Your task to perform on an android device: make emails show in primary in the gmail app Image 0: 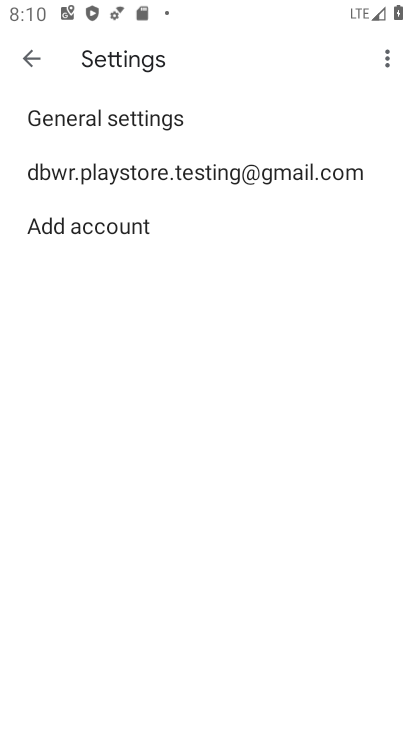
Step 0: press home button
Your task to perform on an android device: make emails show in primary in the gmail app Image 1: 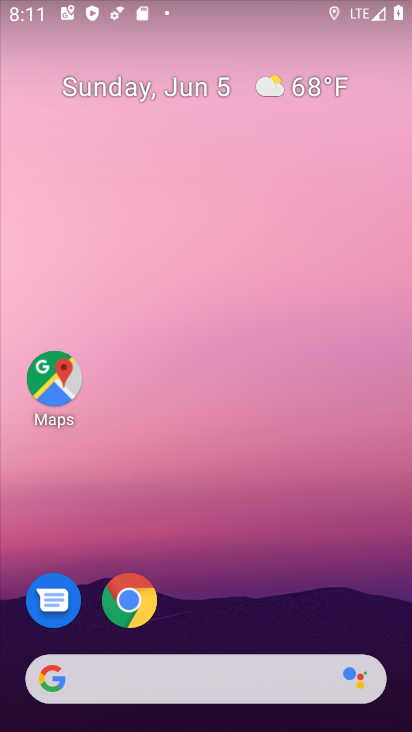
Step 1: drag from (207, 591) to (185, 1)
Your task to perform on an android device: make emails show in primary in the gmail app Image 2: 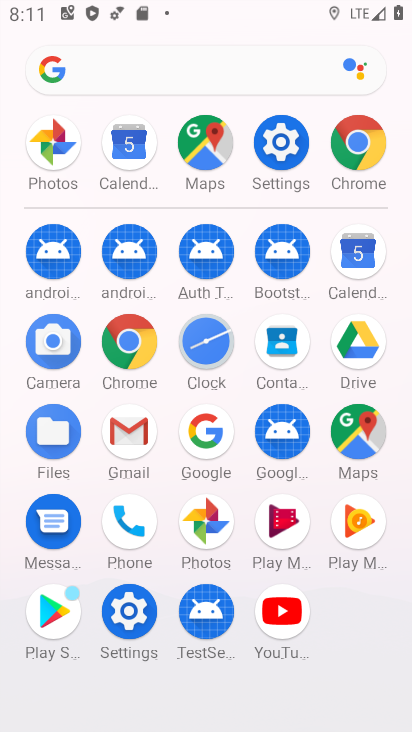
Step 2: click (132, 436)
Your task to perform on an android device: make emails show in primary in the gmail app Image 3: 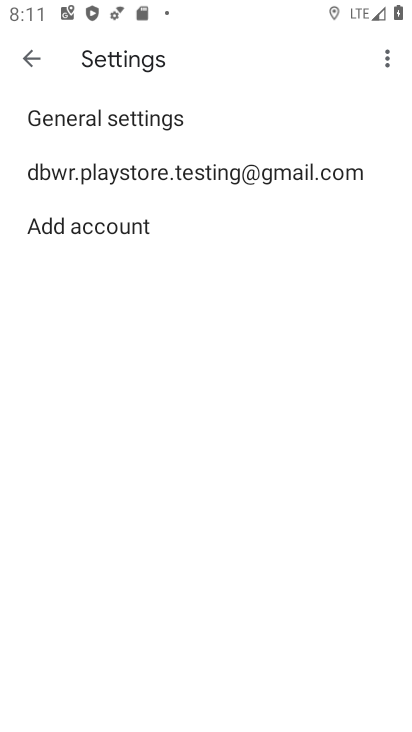
Step 3: click (40, 48)
Your task to perform on an android device: make emails show in primary in the gmail app Image 4: 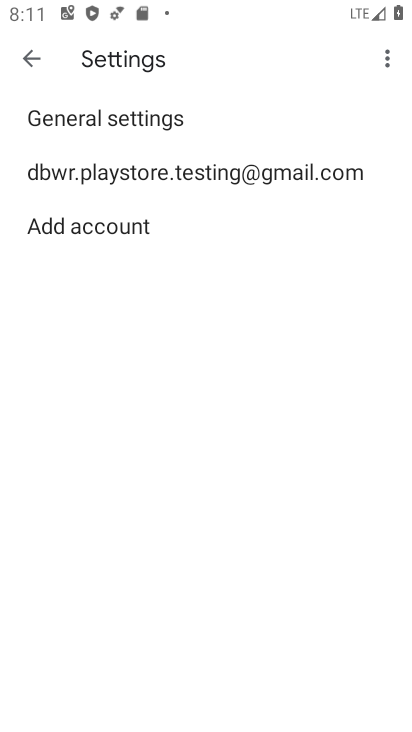
Step 4: click (36, 59)
Your task to perform on an android device: make emails show in primary in the gmail app Image 5: 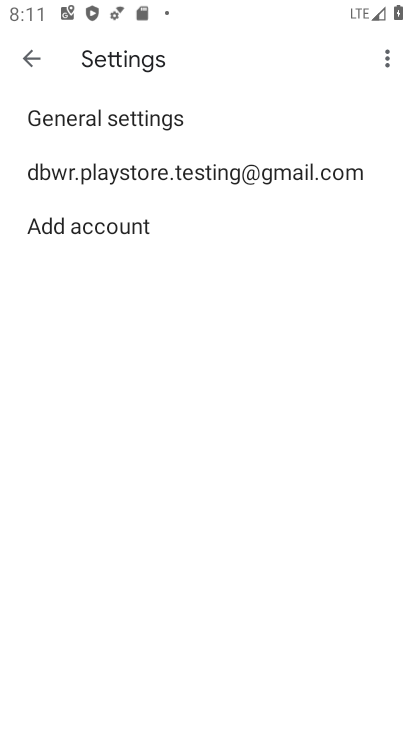
Step 5: click (125, 173)
Your task to perform on an android device: make emails show in primary in the gmail app Image 6: 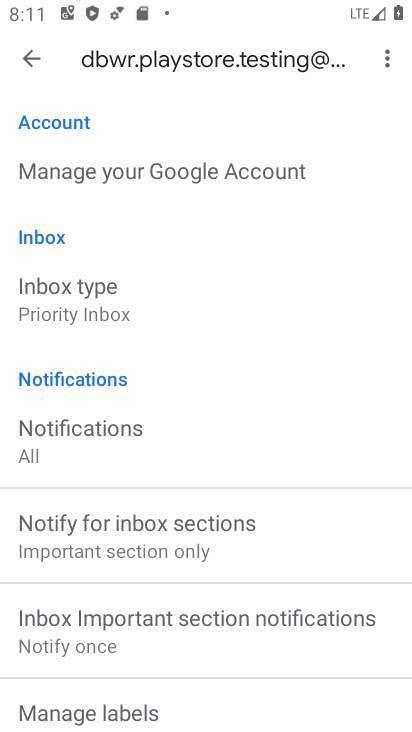
Step 6: click (106, 286)
Your task to perform on an android device: make emails show in primary in the gmail app Image 7: 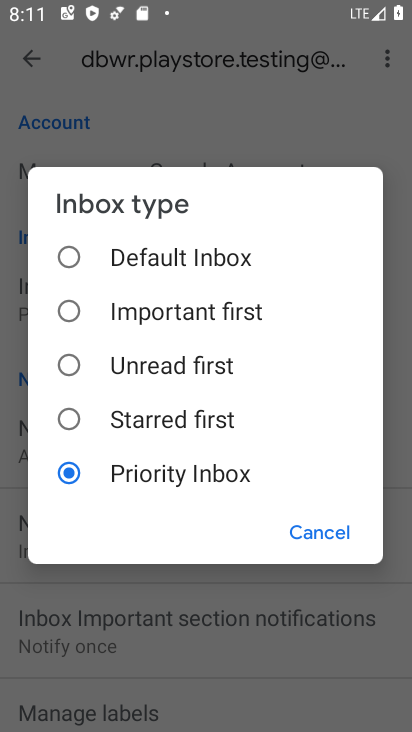
Step 7: click (97, 253)
Your task to perform on an android device: make emails show in primary in the gmail app Image 8: 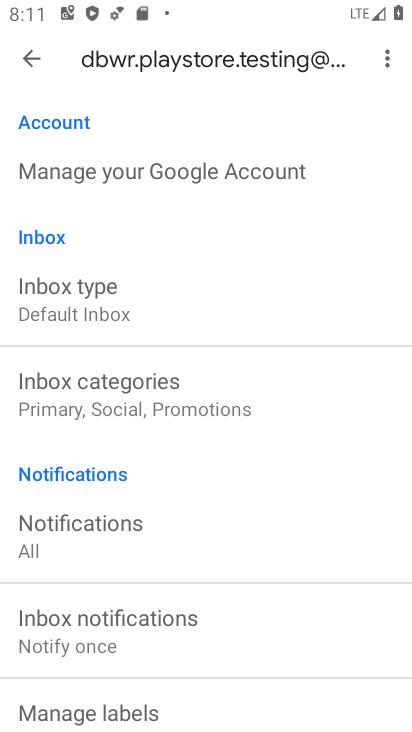
Step 8: click (130, 385)
Your task to perform on an android device: make emails show in primary in the gmail app Image 9: 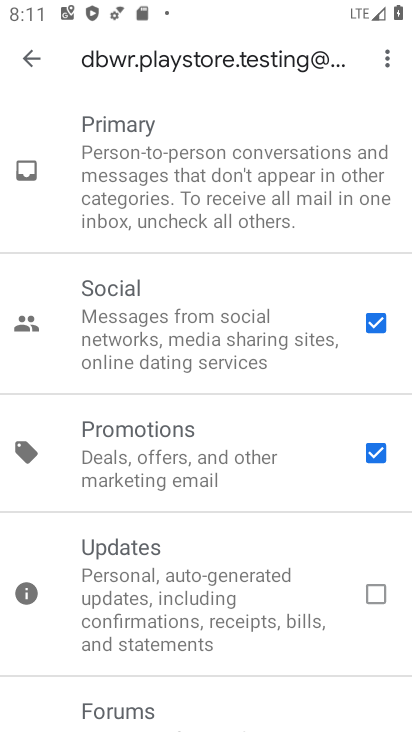
Step 9: click (373, 315)
Your task to perform on an android device: make emails show in primary in the gmail app Image 10: 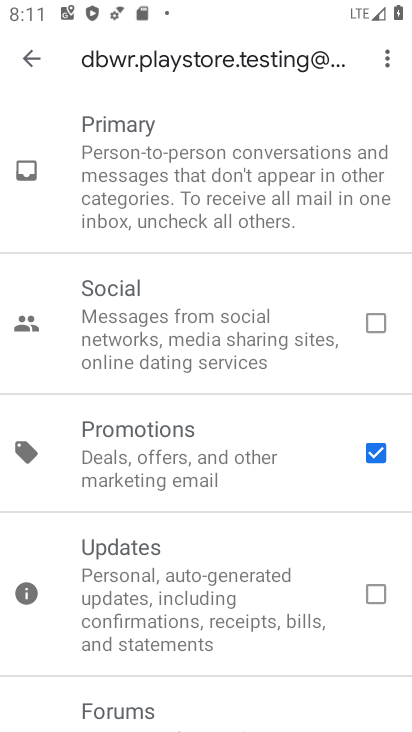
Step 10: click (374, 442)
Your task to perform on an android device: make emails show in primary in the gmail app Image 11: 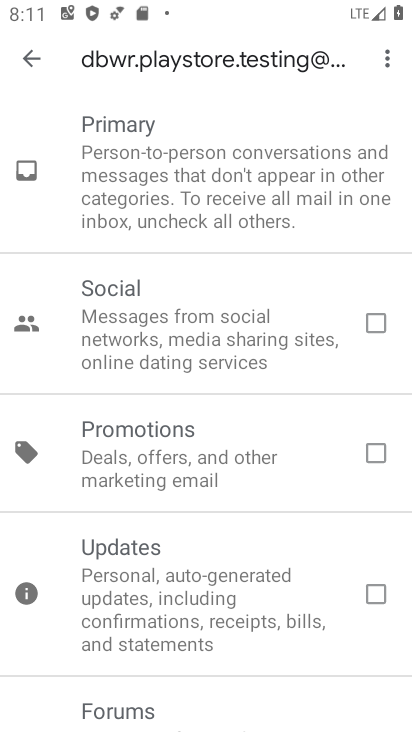
Step 11: task complete